Your task to perform on an android device: visit the assistant section in the google photos Image 0: 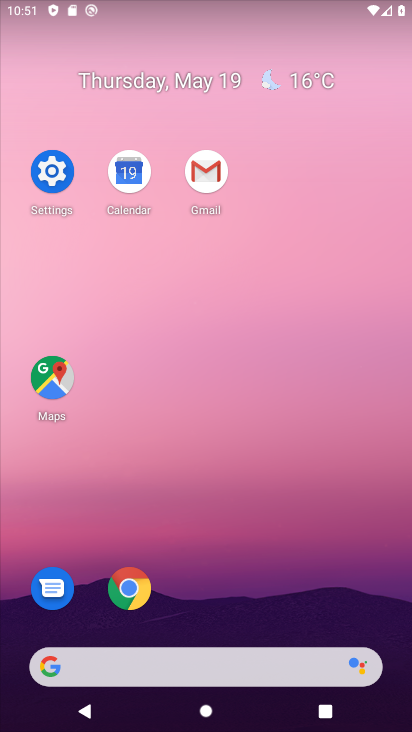
Step 0: drag from (260, 421) to (292, 101)
Your task to perform on an android device: visit the assistant section in the google photos Image 1: 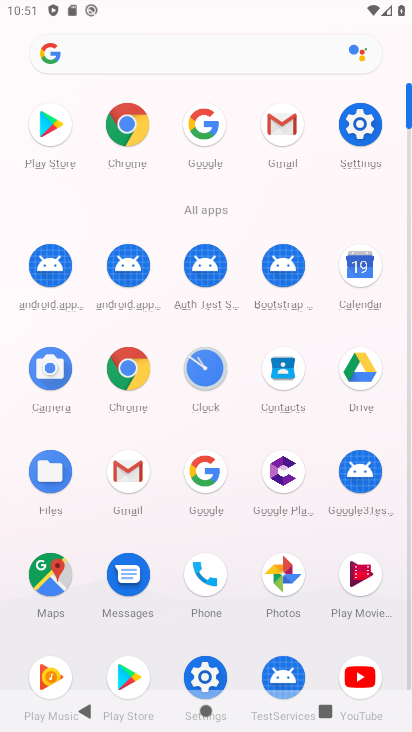
Step 1: drag from (282, 574) to (294, 206)
Your task to perform on an android device: visit the assistant section in the google photos Image 2: 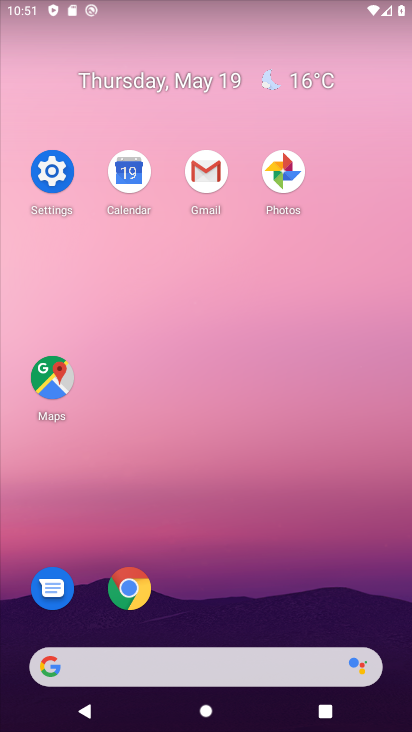
Step 2: click (278, 179)
Your task to perform on an android device: visit the assistant section in the google photos Image 3: 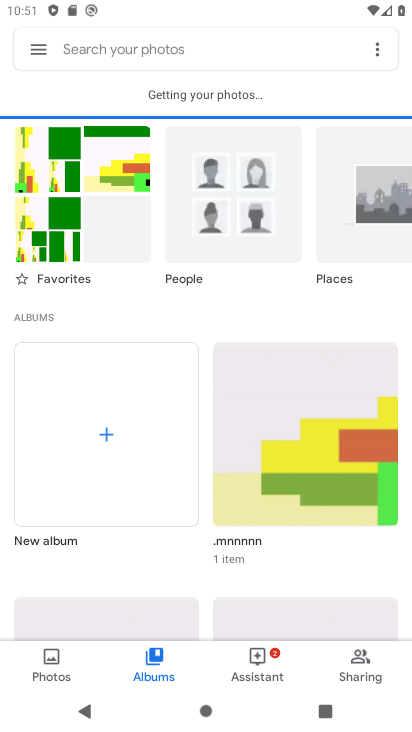
Step 3: click (253, 672)
Your task to perform on an android device: visit the assistant section in the google photos Image 4: 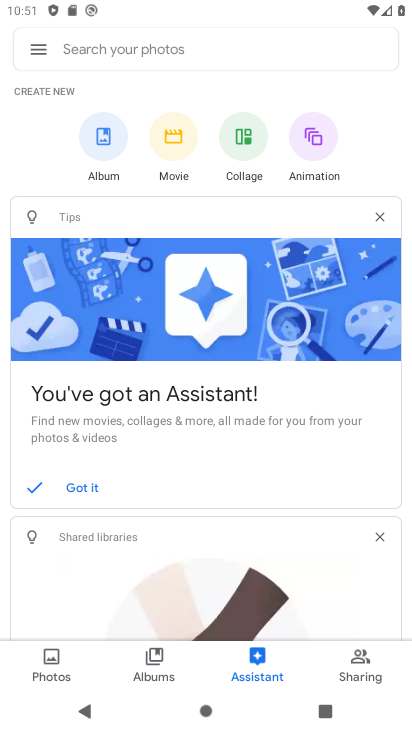
Step 4: task complete